Your task to perform on an android device: turn on data saver in the chrome app Image 0: 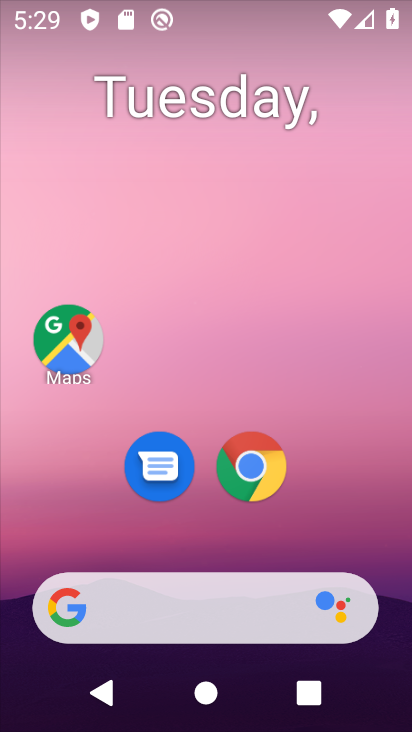
Step 0: press home button
Your task to perform on an android device: turn on data saver in the chrome app Image 1: 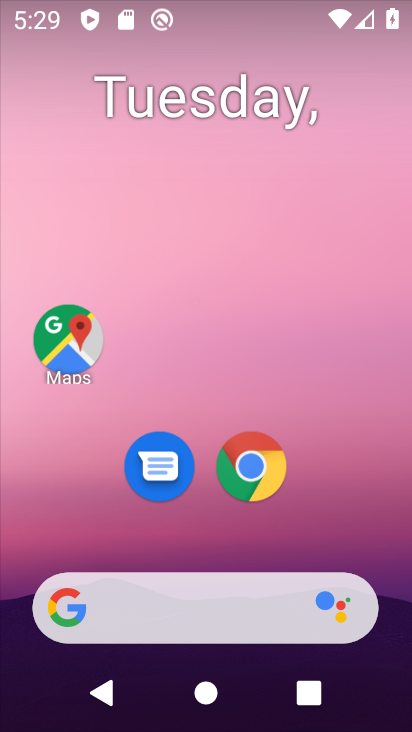
Step 1: drag from (361, 526) to (308, 15)
Your task to perform on an android device: turn on data saver in the chrome app Image 2: 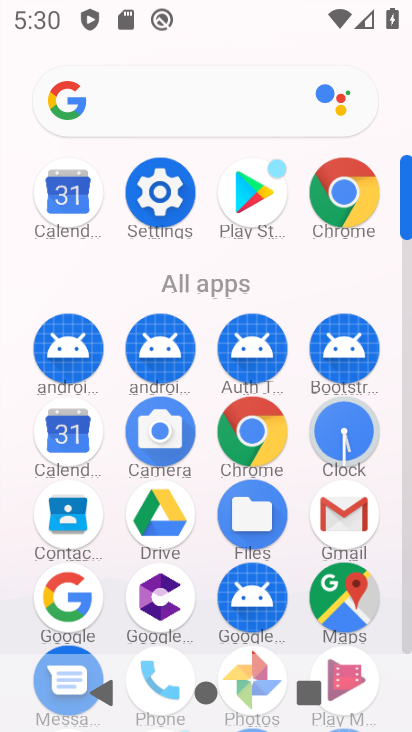
Step 2: click (350, 214)
Your task to perform on an android device: turn on data saver in the chrome app Image 3: 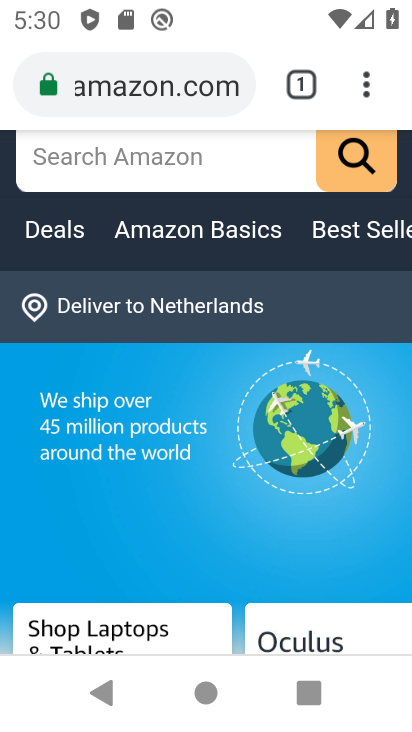
Step 3: drag from (369, 77) to (186, 522)
Your task to perform on an android device: turn on data saver in the chrome app Image 4: 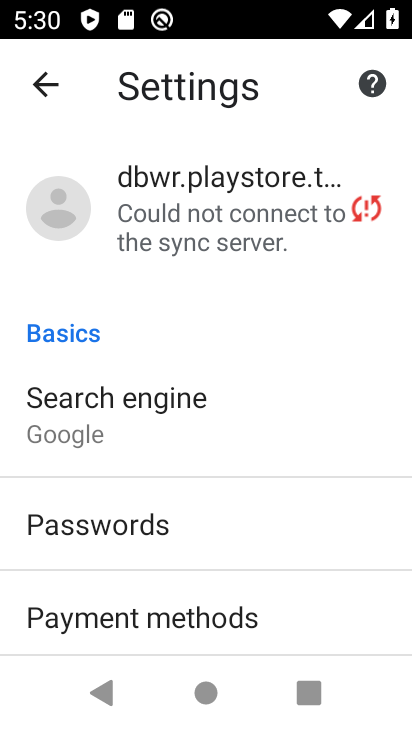
Step 4: drag from (301, 635) to (258, 261)
Your task to perform on an android device: turn on data saver in the chrome app Image 5: 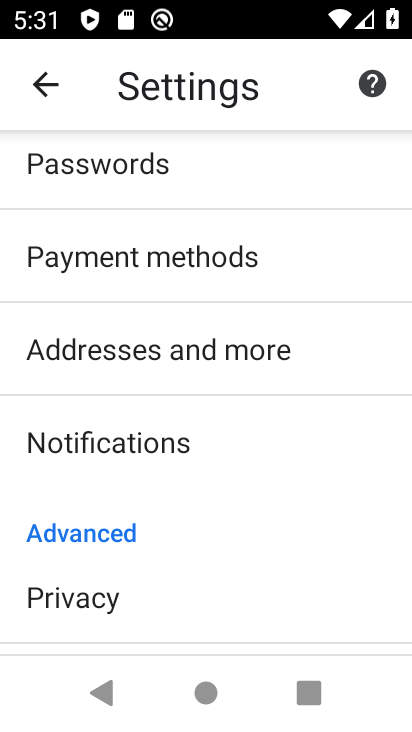
Step 5: drag from (222, 557) to (225, 374)
Your task to perform on an android device: turn on data saver in the chrome app Image 6: 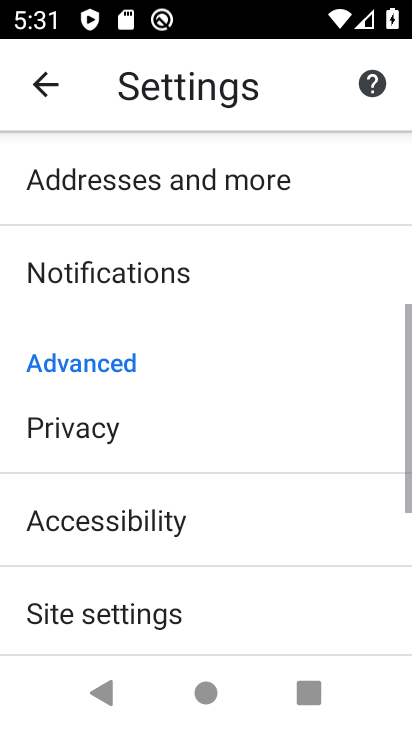
Step 6: click (225, 374)
Your task to perform on an android device: turn on data saver in the chrome app Image 7: 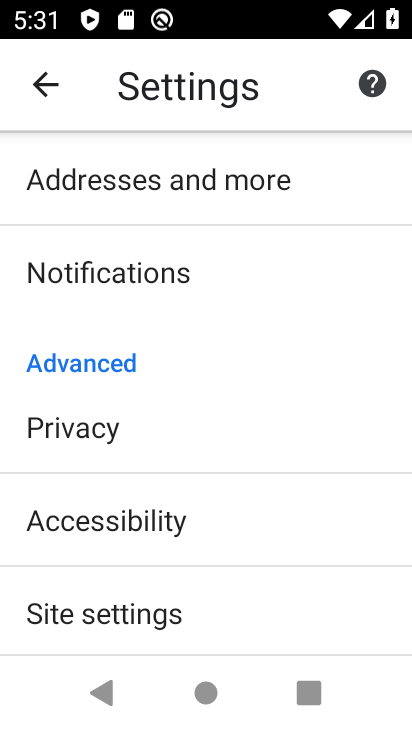
Step 7: drag from (225, 375) to (227, 297)
Your task to perform on an android device: turn on data saver in the chrome app Image 8: 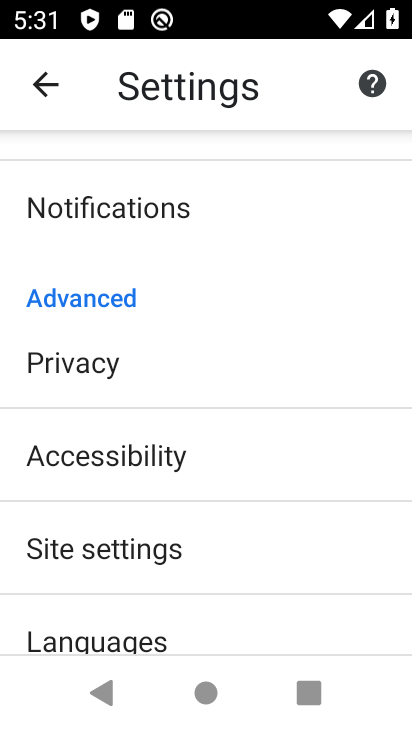
Step 8: drag from (127, 540) to (148, 339)
Your task to perform on an android device: turn on data saver in the chrome app Image 9: 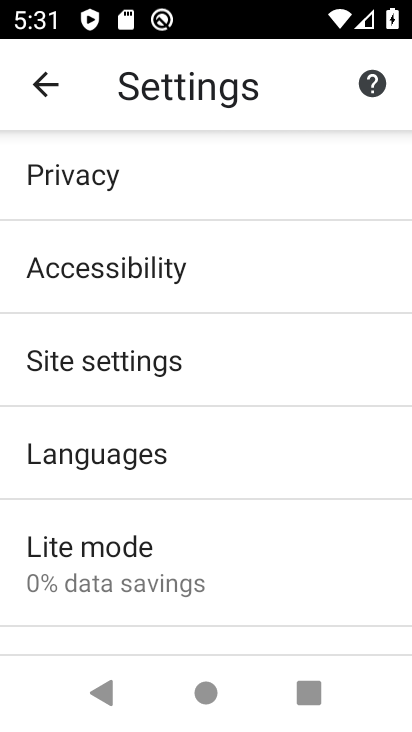
Step 9: click (112, 543)
Your task to perform on an android device: turn on data saver in the chrome app Image 10: 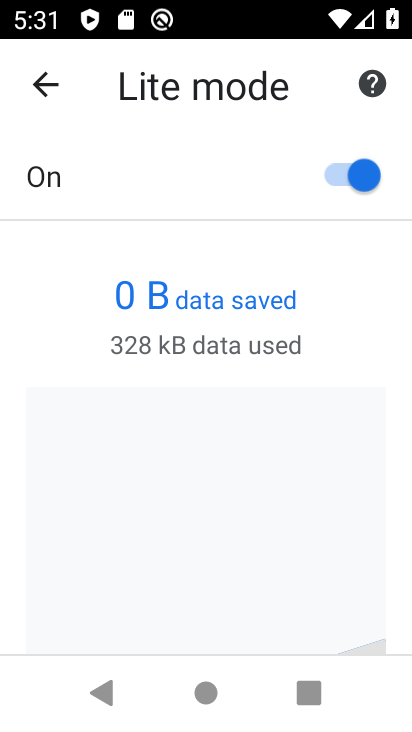
Step 10: task complete